Your task to perform on an android device: Open CNN.com Image 0: 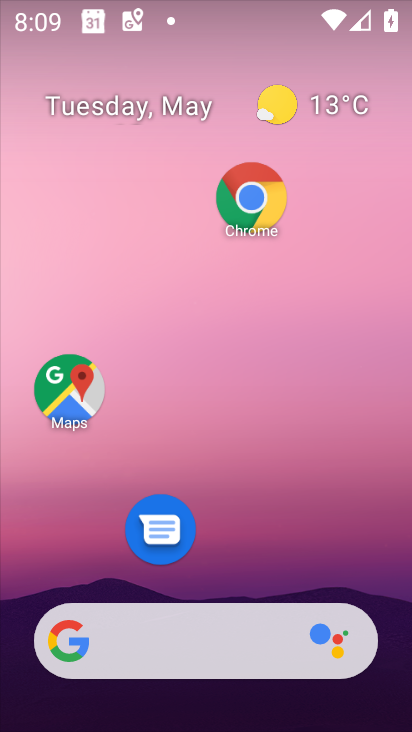
Step 0: click (245, 234)
Your task to perform on an android device: Open CNN.com Image 1: 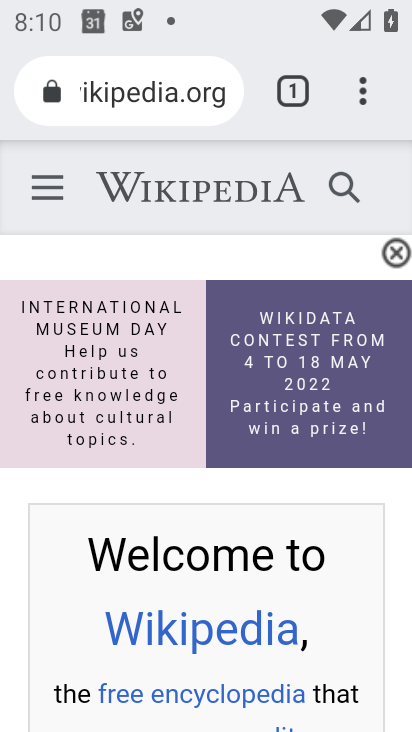
Step 1: click (167, 70)
Your task to perform on an android device: Open CNN.com Image 2: 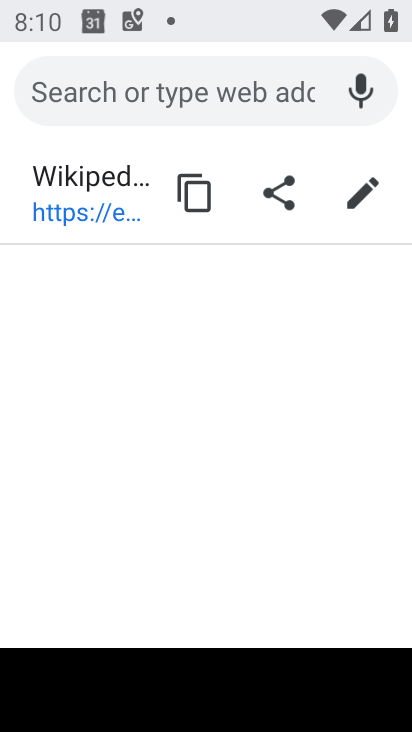
Step 2: type "cnn.com"
Your task to perform on an android device: Open CNN.com Image 3: 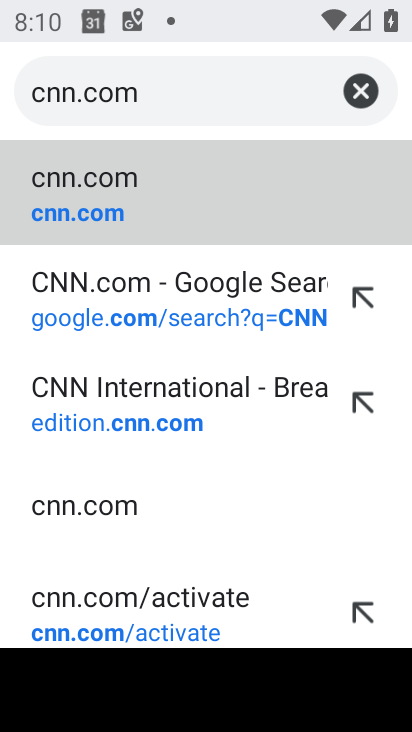
Step 3: click (217, 213)
Your task to perform on an android device: Open CNN.com Image 4: 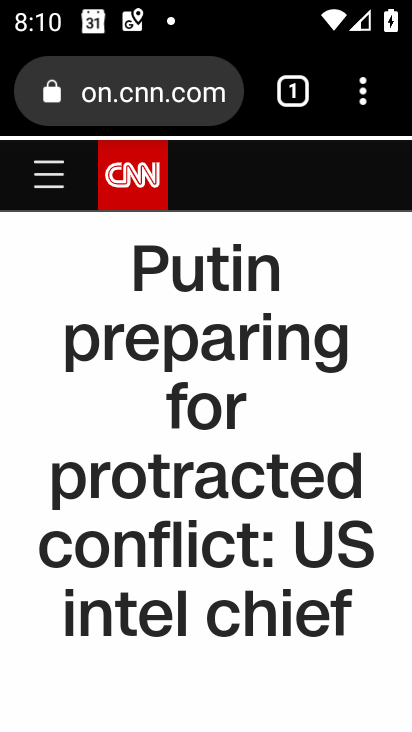
Step 4: task complete